Your task to perform on an android device: Go to Amazon Image 0: 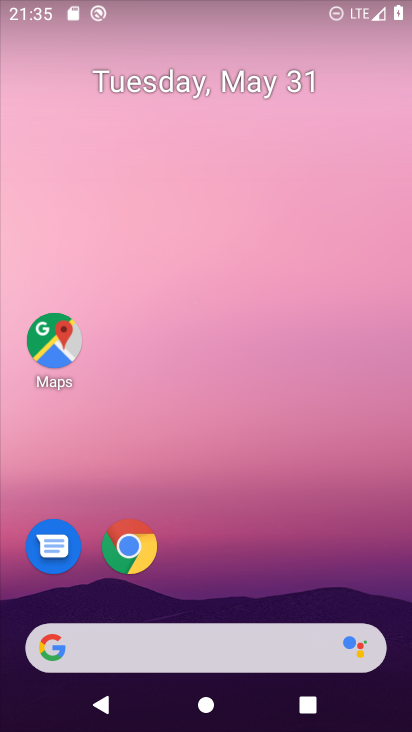
Step 0: click (138, 546)
Your task to perform on an android device: Go to Amazon Image 1: 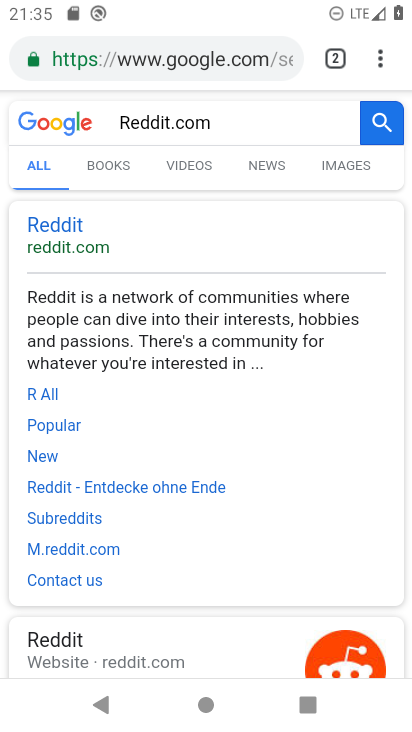
Step 1: click (291, 52)
Your task to perform on an android device: Go to Amazon Image 2: 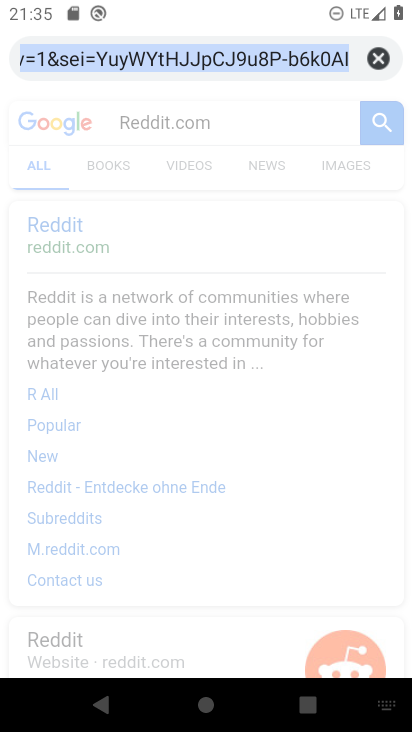
Step 2: click (384, 55)
Your task to perform on an android device: Go to Amazon Image 3: 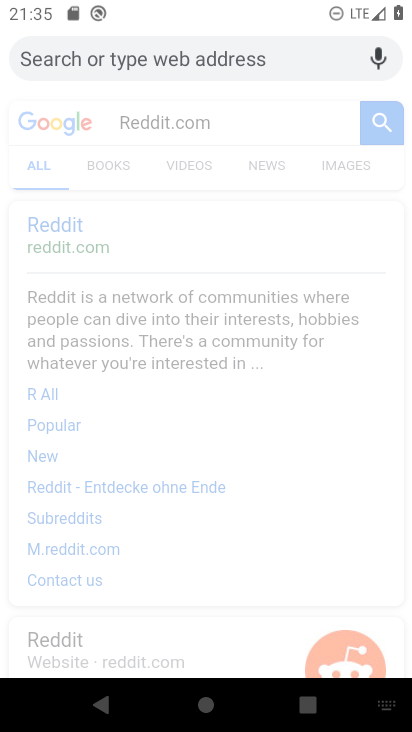
Step 3: type "Amazon"
Your task to perform on an android device: Go to Amazon Image 4: 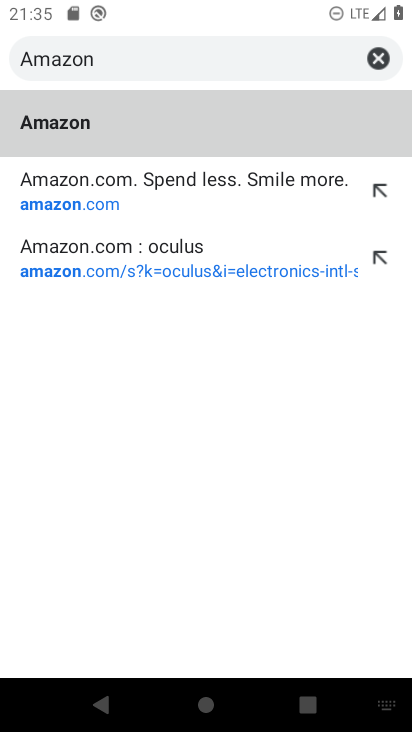
Step 4: click (62, 122)
Your task to perform on an android device: Go to Amazon Image 5: 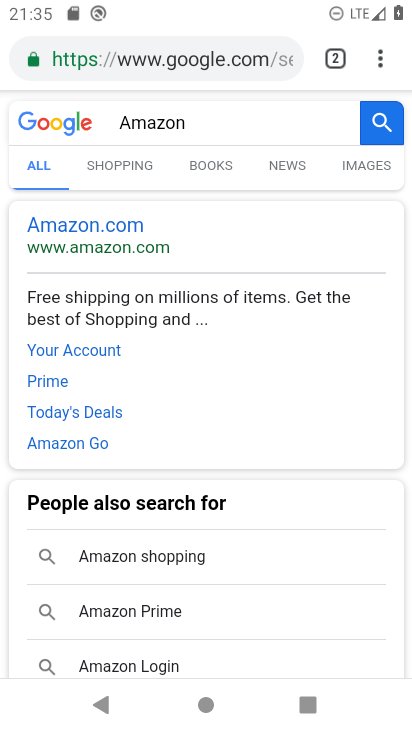
Step 5: task complete